Your task to perform on an android device: add a contact Image 0: 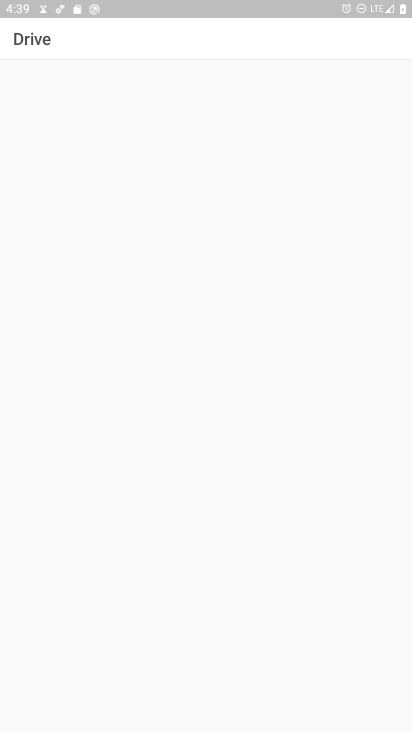
Step 0: press home button
Your task to perform on an android device: add a contact Image 1: 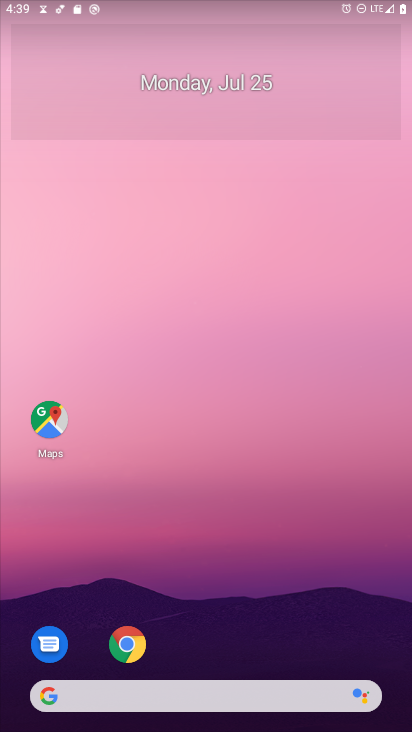
Step 1: drag from (236, 518) to (250, 53)
Your task to perform on an android device: add a contact Image 2: 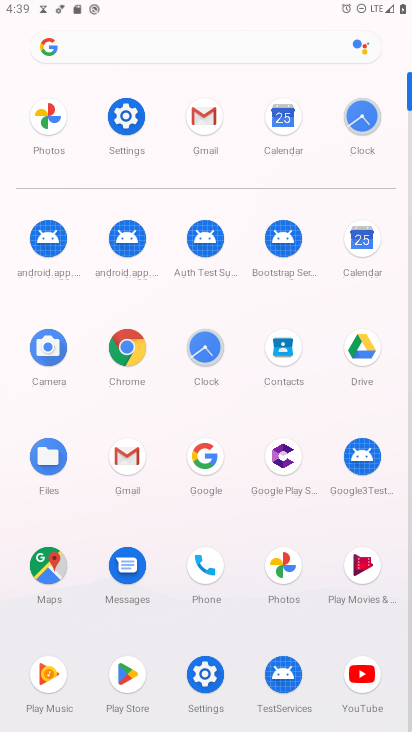
Step 2: click (283, 354)
Your task to perform on an android device: add a contact Image 3: 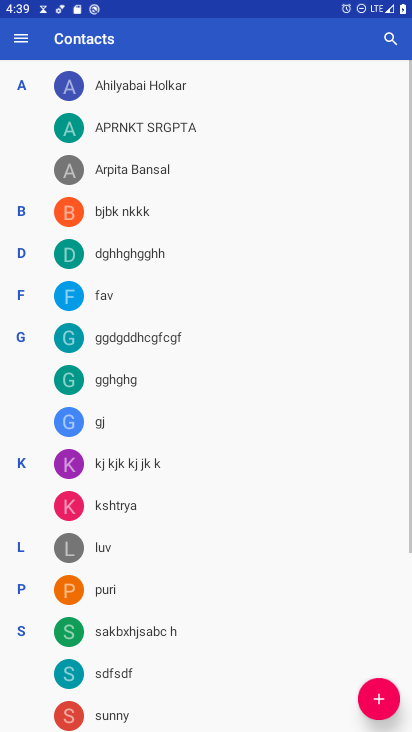
Step 3: click (404, 703)
Your task to perform on an android device: add a contact Image 4: 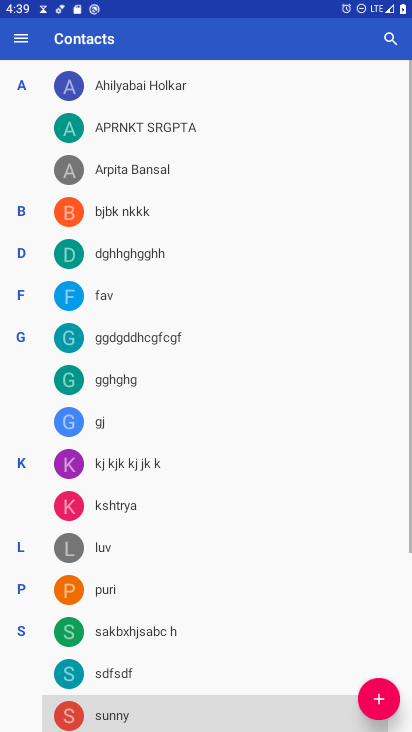
Step 4: click (387, 694)
Your task to perform on an android device: add a contact Image 5: 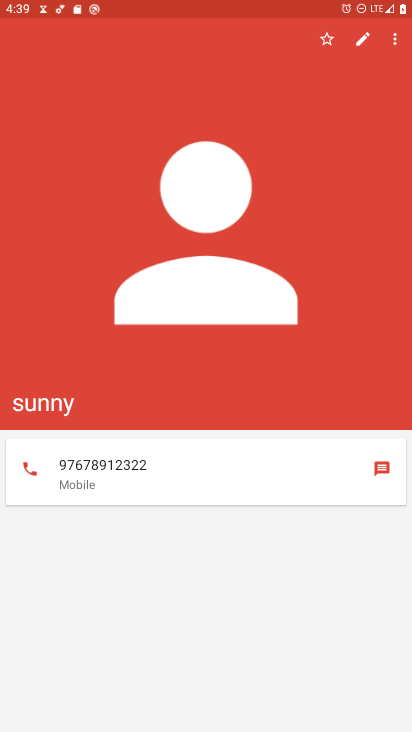
Step 5: press back button
Your task to perform on an android device: add a contact Image 6: 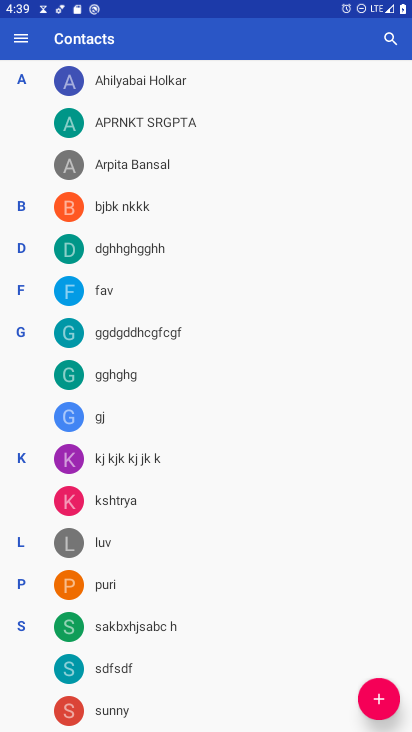
Step 6: click (388, 698)
Your task to perform on an android device: add a contact Image 7: 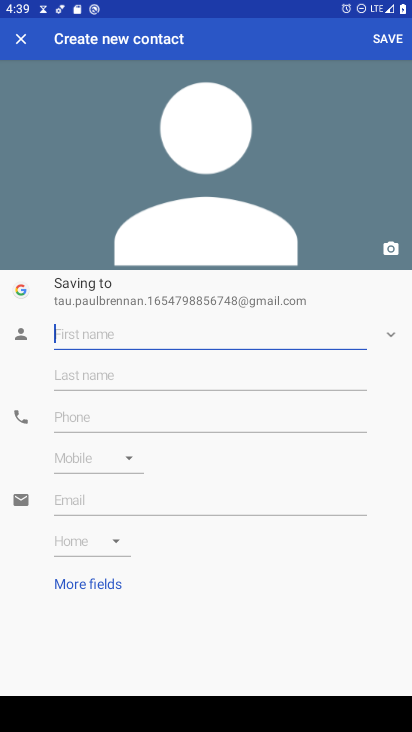
Step 7: type "ddwxdddds"
Your task to perform on an android device: add a contact Image 8: 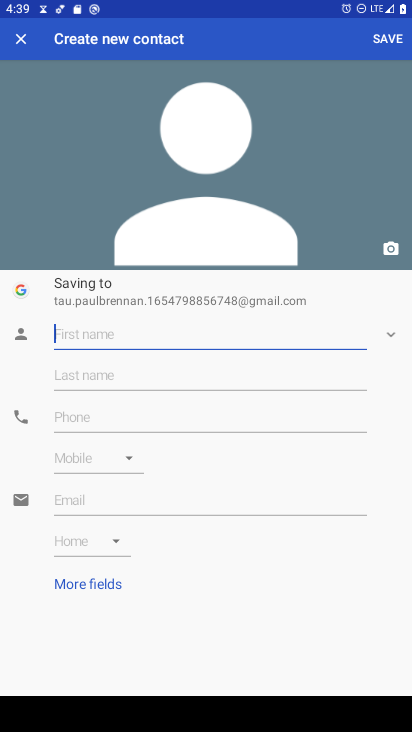
Step 8: click (112, 331)
Your task to perform on an android device: add a contact Image 9: 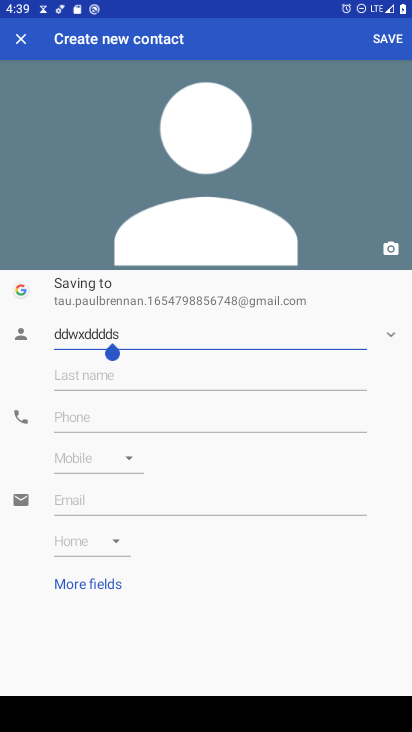
Step 9: click (97, 421)
Your task to perform on an android device: add a contact Image 10: 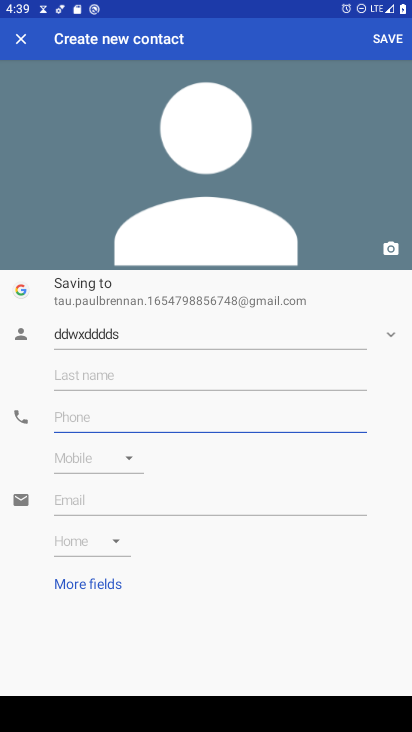
Step 10: type "2424224443333"
Your task to perform on an android device: add a contact Image 11: 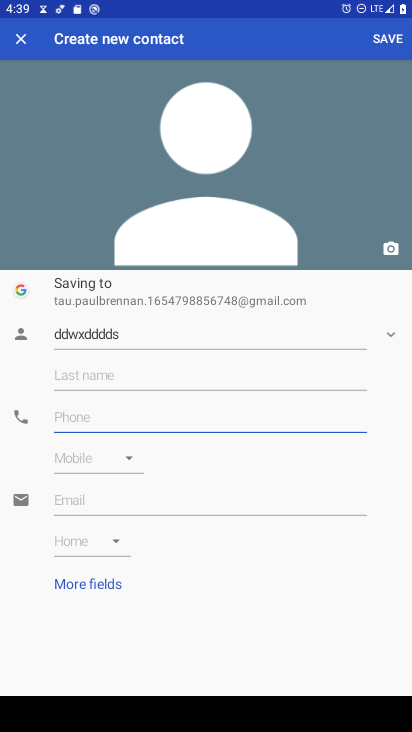
Step 11: click (101, 419)
Your task to perform on an android device: add a contact Image 12: 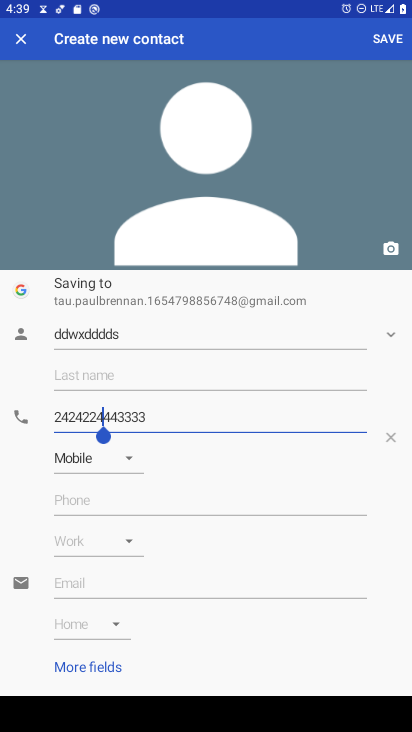
Step 12: click (389, 36)
Your task to perform on an android device: add a contact Image 13: 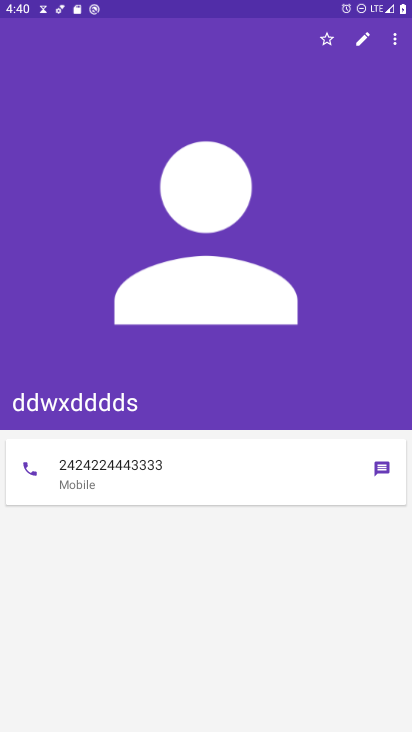
Step 13: task complete